Your task to perform on an android device: move a message to another label in the gmail app Image 0: 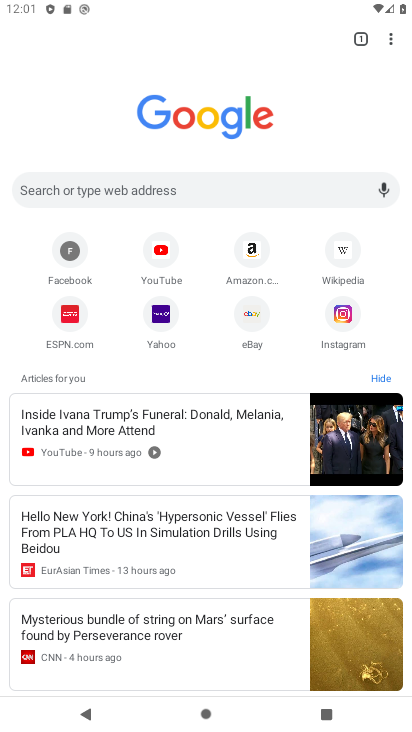
Step 0: press home button
Your task to perform on an android device: move a message to another label in the gmail app Image 1: 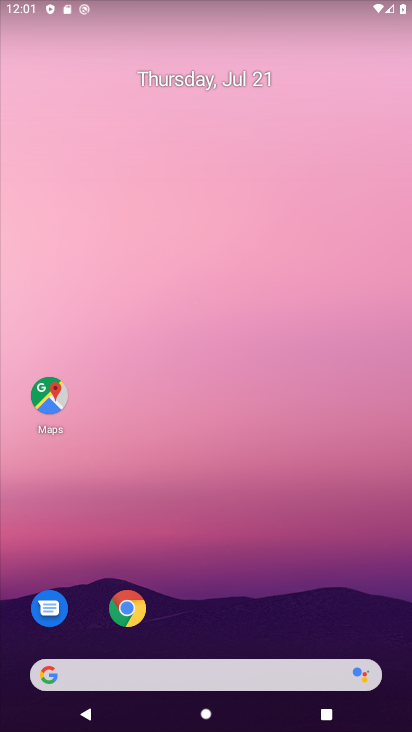
Step 1: drag from (238, 638) to (264, 166)
Your task to perform on an android device: move a message to another label in the gmail app Image 2: 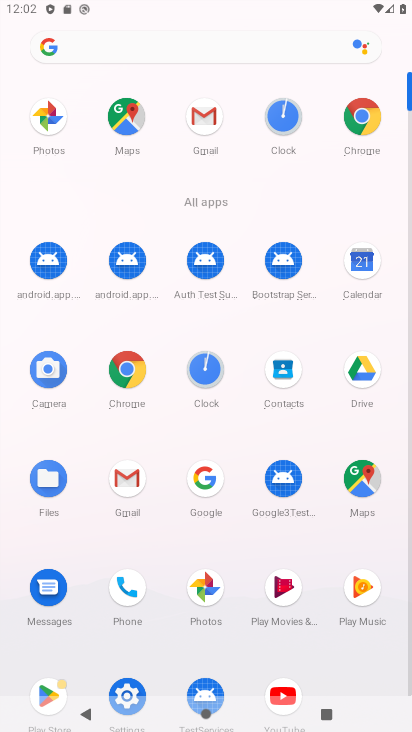
Step 2: click (129, 479)
Your task to perform on an android device: move a message to another label in the gmail app Image 3: 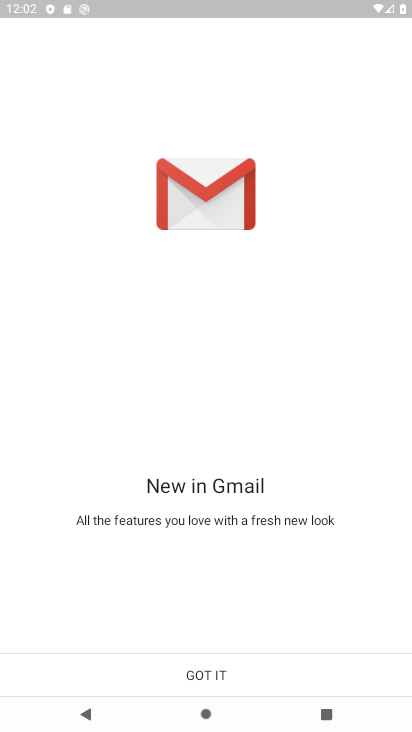
Step 3: click (220, 671)
Your task to perform on an android device: move a message to another label in the gmail app Image 4: 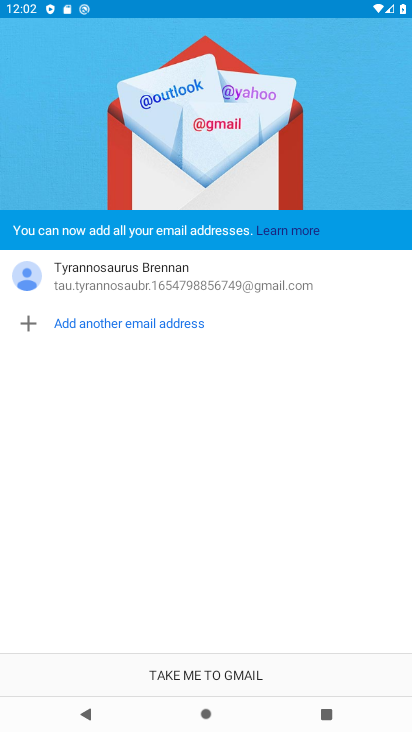
Step 4: click (212, 668)
Your task to perform on an android device: move a message to another label in the gmail app Image 5: 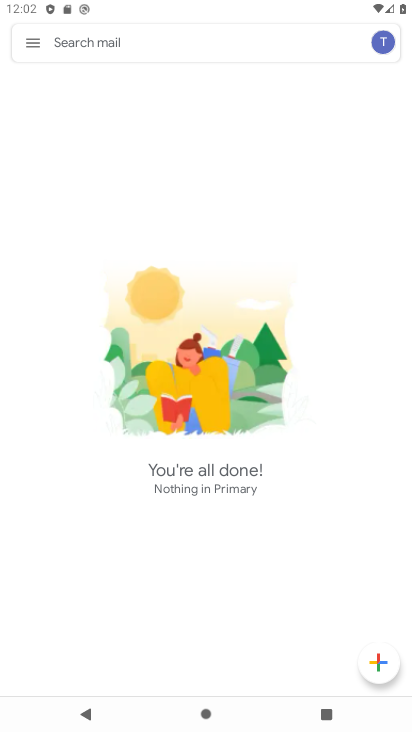
Step 5: task complete